Your task to perform on an android device: Toggle the flashlight Image 0: 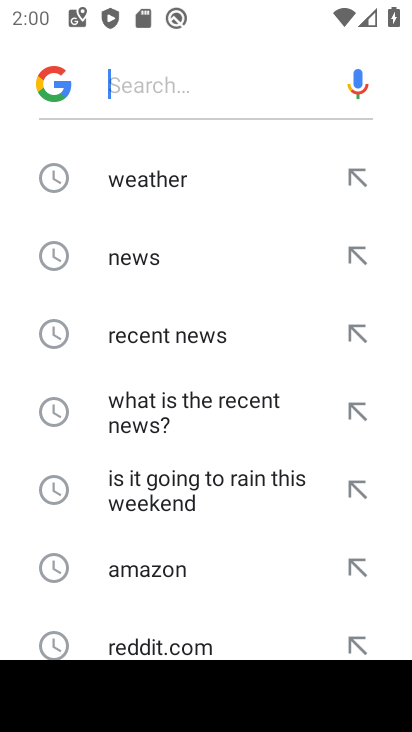
Step 0: press home button
Your task to perform on an android device: Toggle the flashlight Image 1: 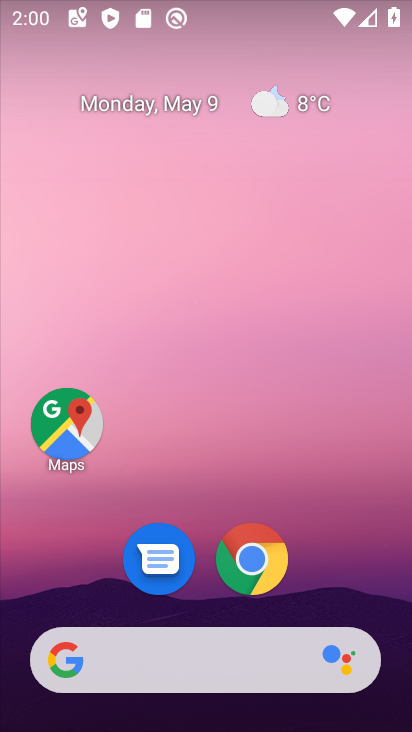
Step 1: drag from (203, 489) to (113, 55)
Your task to perform on an android device: Toggle the flashlight Image 2: 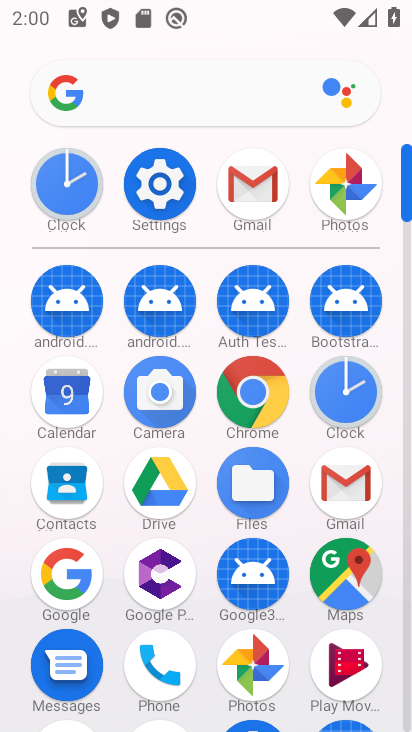
Step 2: click (154, 196)
Your task to perform on an android device: Toggle the flashlight Image 3: 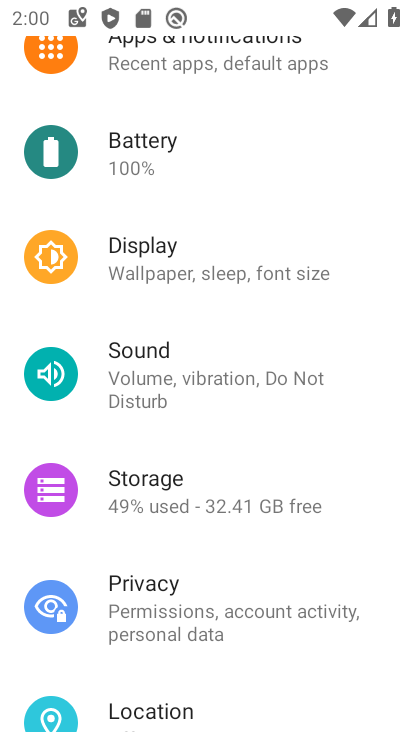
Step 3: click (143, 250)
Your task to perform on an android device: Toggle the flashlight Image 4: 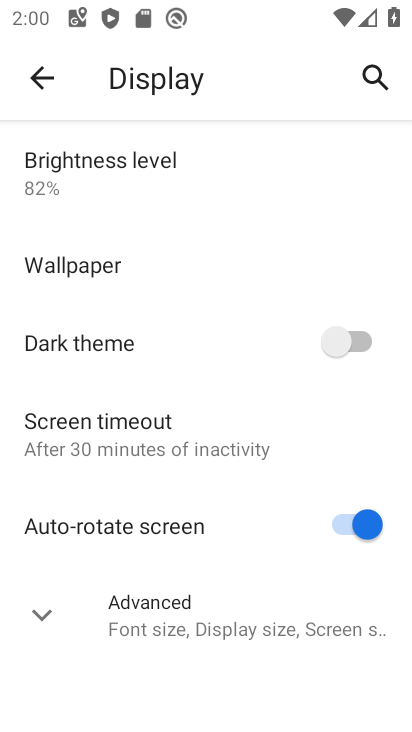
Step 4: task complete